Your task to perform on an android device: Search for Italian restaurants on Maps Image 0: 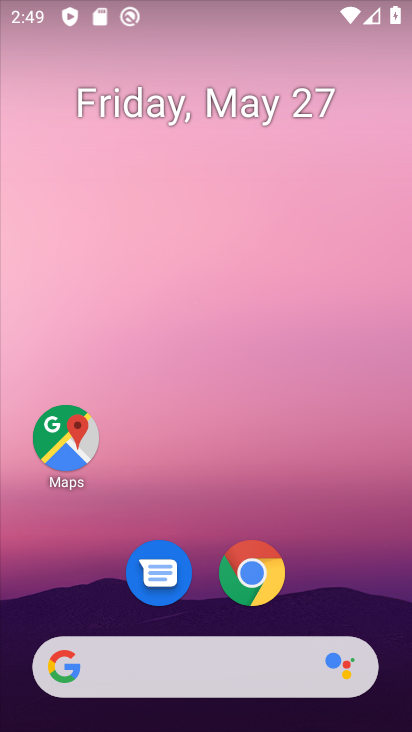
Step 0: drag from (193, 523) to (267, 180)
Your task to perform on an android device: Search for Italian restaurants on Maps Image 1: 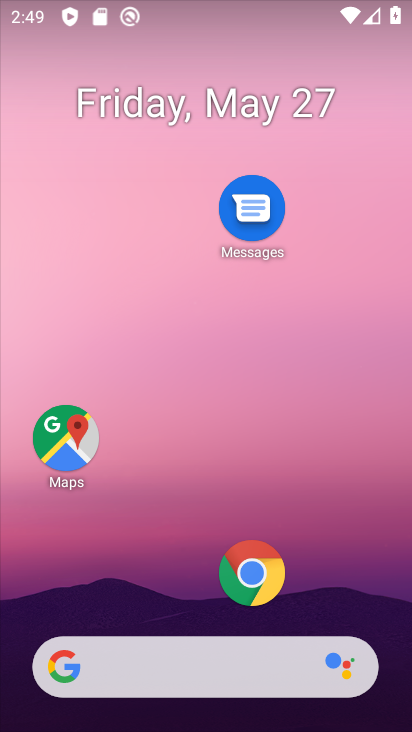
Step 1: drag from (233, 458) to (195, 139)
Your task to perform on an android device: Search for Italian restaurants on Maps Image 2: 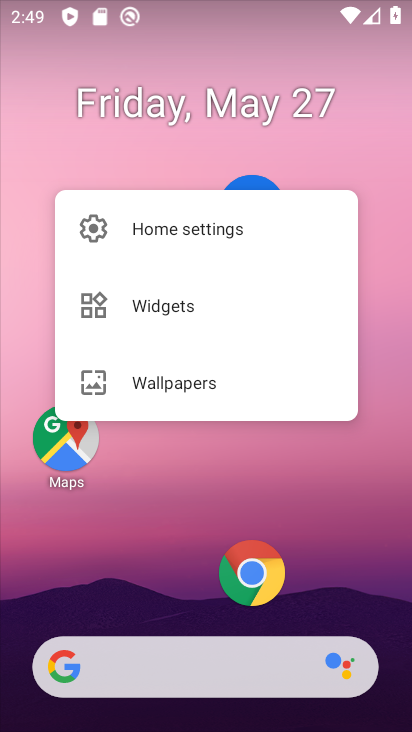
Step 2: click (173, 553)
Your task to perform on an android device: Search for Italian restaurants on Maps Image 3: 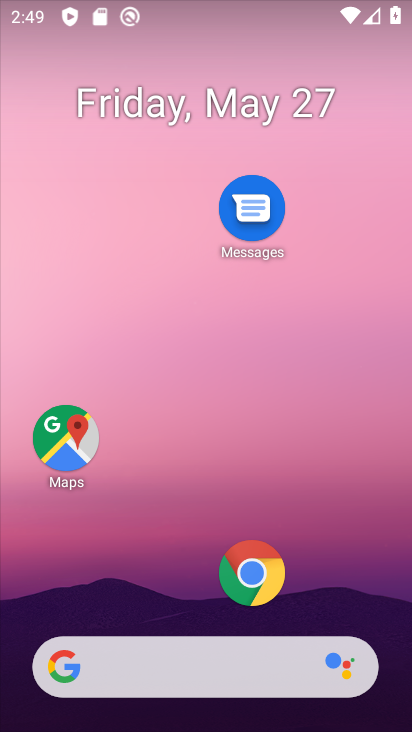
Step 3: drag from (173, 552) to (170, 68)
Your task to perform on an android device: Search for Italian restaurants on Maps Image 4: 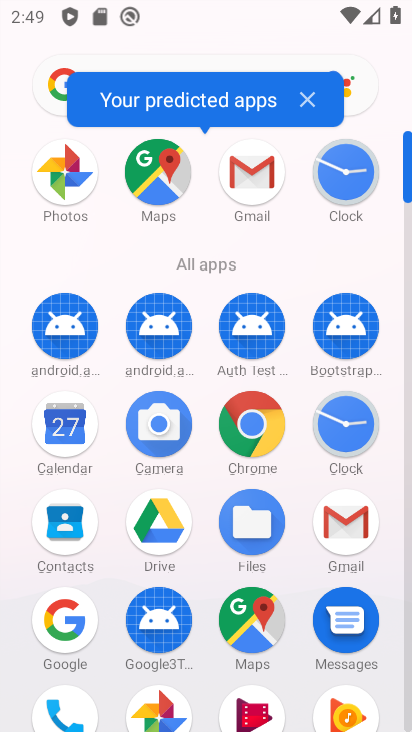
Step 4: click (263, 629)
Your task to perform on an android device: Search for Italian restaurants on Maps Image 5: 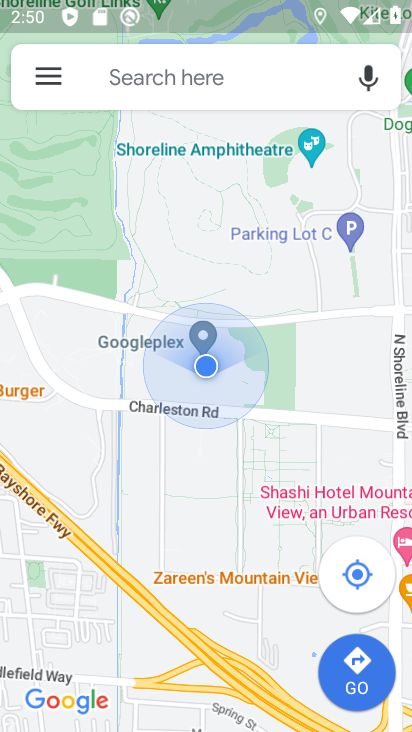
Step 5: click (214, 73)
Your task to perform on an android device: Search for Italian restaurants on Maps Image 6: 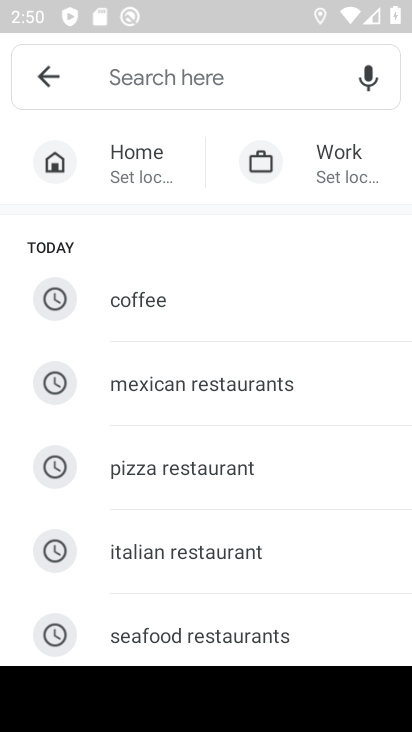
Step 6: type "italian restaurants"
Your task to perform on an android device: Search for Italian restaurants on Maps Image 7: 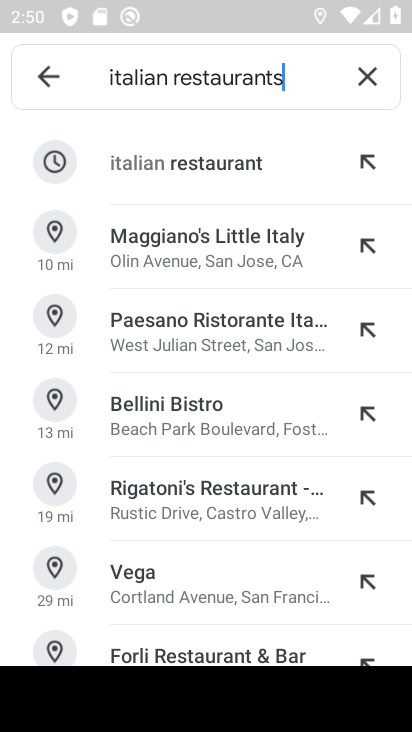
Step 7: click (140, 157)
Your task to perform on an android device: Search for Italian restaurants on Maps Image 8: 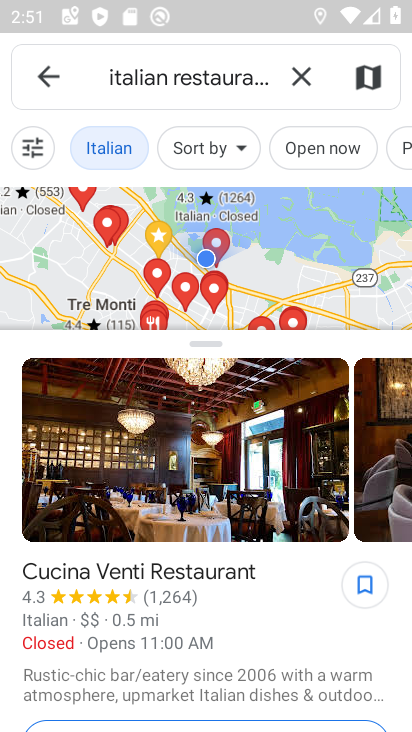
Step 8: task complete